Your task to perform on an android device: move a message to another label in the gmail app Image 0: 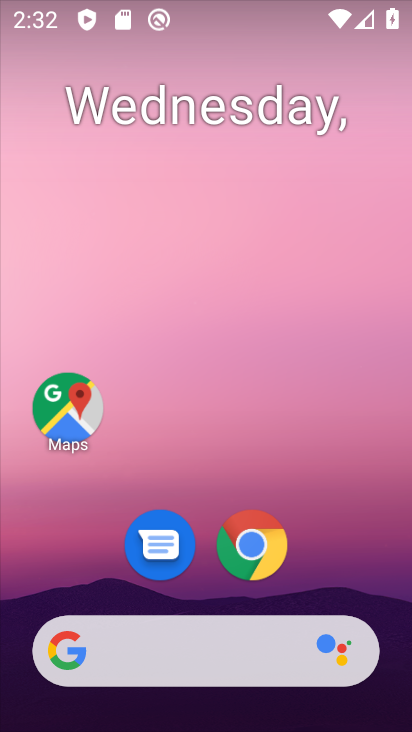
Step 0: drag from (201, 723) to (212, 116)
Your task to perform on an android device: move a message to another label in the gmail app Image 1: 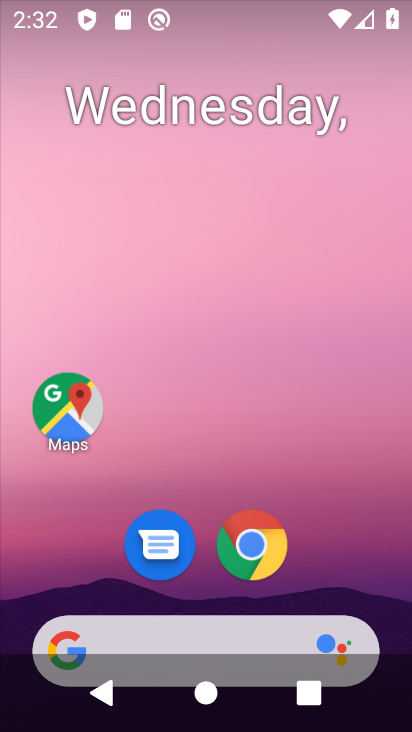
Step 1: drag from (202, 727) to (203, 110)
Your task to perform on an android device: move a message to another label in the gmail app Image 2: 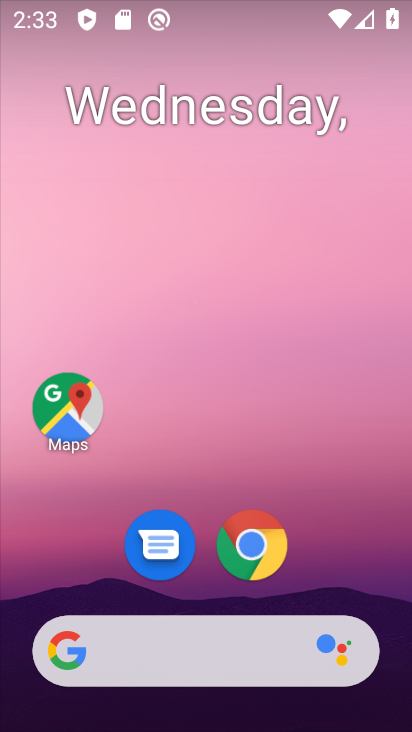
Step 2: drag from (203, 725) to (194, 131)
Your task to perform on an android device: move a message to another label in the gmail app Image 3: 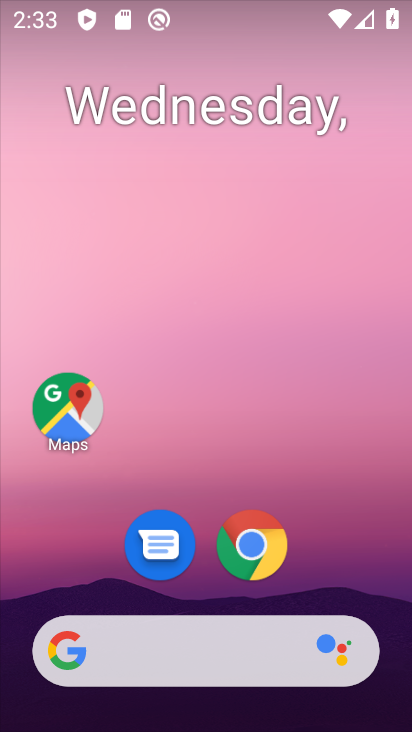
Step 3: drag from (201, 718) to (183, 54)
Your task to perform on an android device: move a message to another label in the gmail app Image 4: 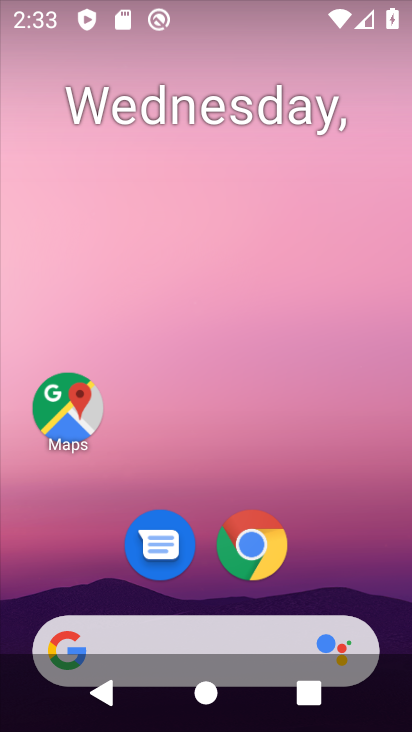
Step 4: drag from (193, 709) to (195, 4)
Your task to perform on an android device: move a message to another label in the gmail app Image 5: 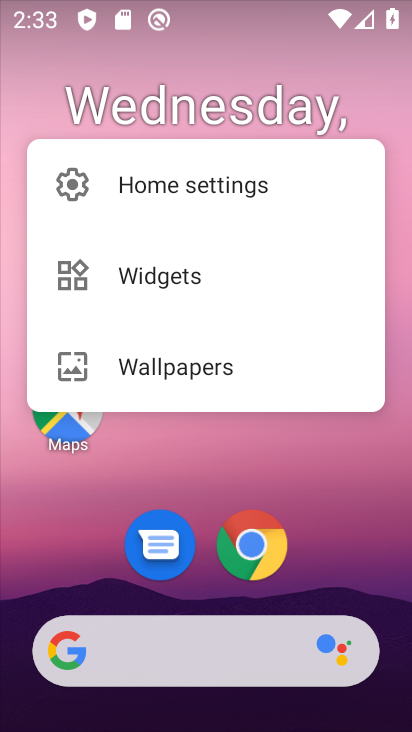
Step 5: click (210, 435)
Your task to perform on an android device: move a message to another label in the gmail app Image 6: 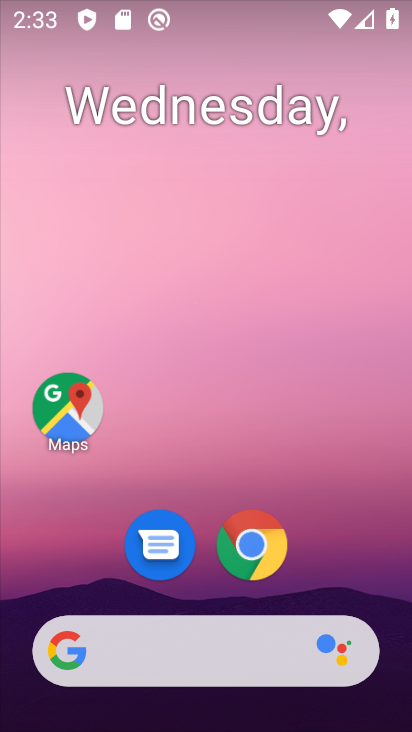
Step 6: drag from (204, 723) to (180, 54)
Your task to perform on an android device: move a message to another label in the gmail app Image 7: 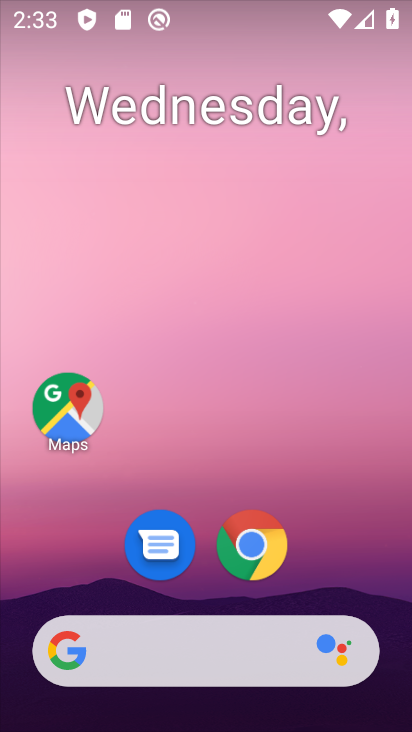
Step 7: drag from (189, 708) to (196, 92)
Your task to perform on an android device: move a message to another label in the gmail app Image 8: 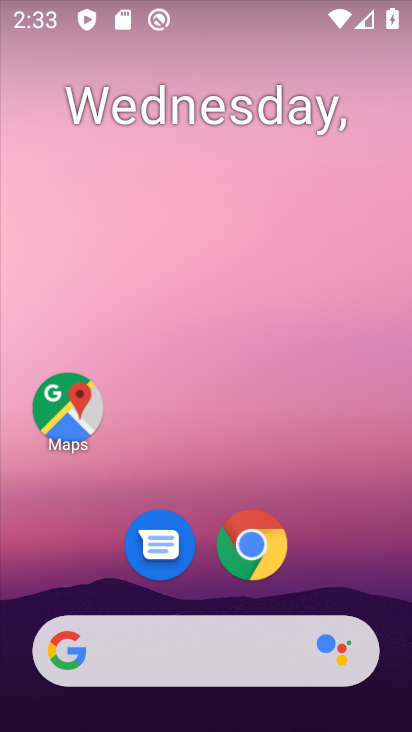
Step 8: drag from (200, 695) to (200, 49)
Your task to perform on an android device: move a message to another label in the gmail app Image 9: 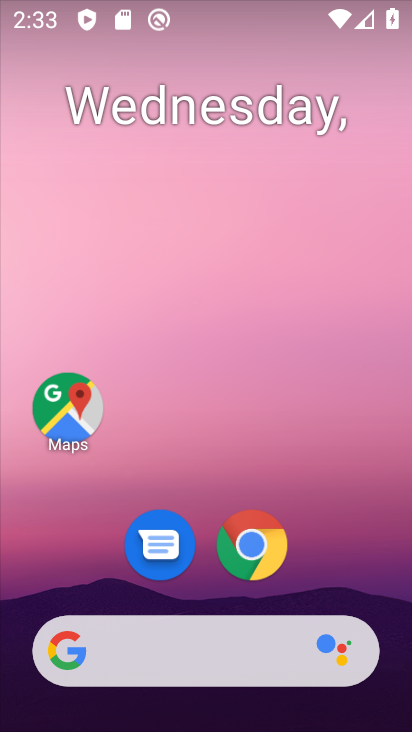
Step 9: drag from (207, 720) to (213, 4)
Your task to perform on an android device: move a message to another label in the gmail app Image 10: 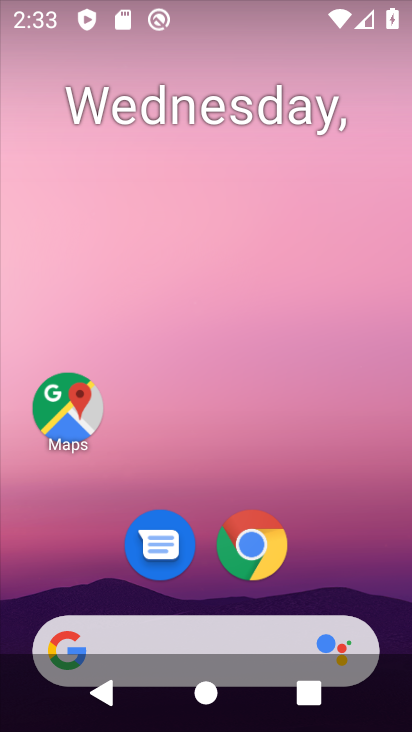
Step 10: drag from (184, 714) to (184, 42)
Your task to perform on an android device: move a message to another label in the gmail app Image 11: 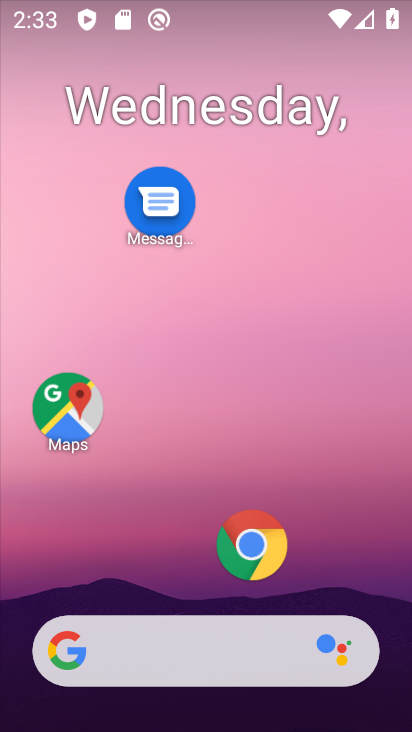
Step 11: drag from (191, 718) to (175, 147)
Your task to perform on an android device: move a message to another label in the gmail app Image 12: 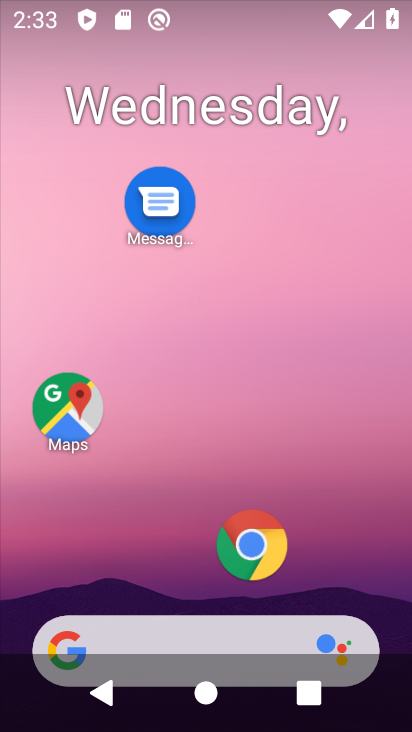
Step 12: drag from (220, 716) to (216, 37)
Your task to perform on an android device: move a message to another label in the gmail app Image 13: 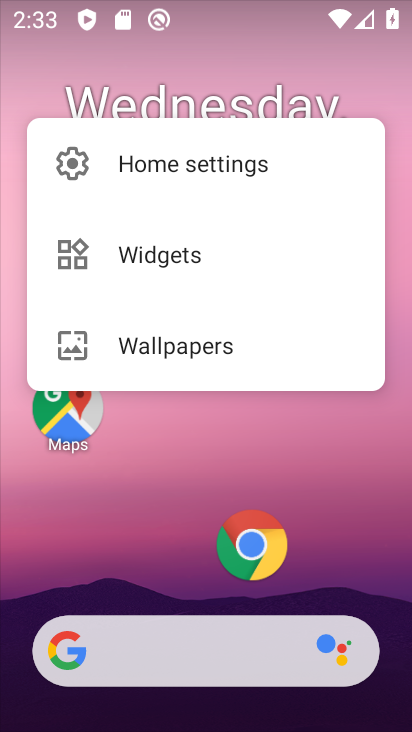
Step 13: click (199, 457)
Your task to perform on an android device: move a message to another label in the gmail app Image 14: 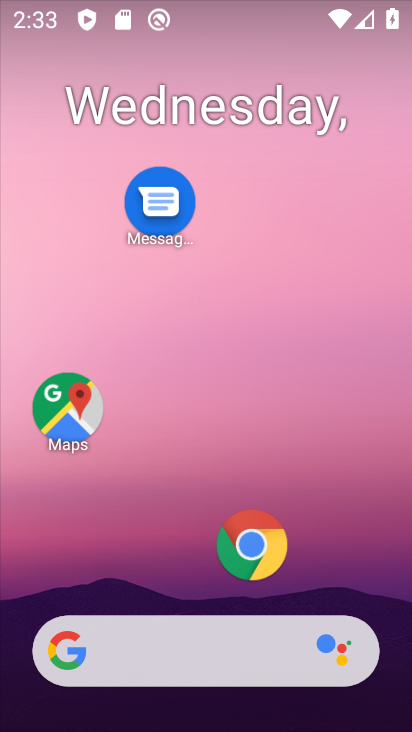
Step 14: drag from (238, 715) to (218, 44)
Your task to perform on an android device: move a message to another label in the gmail app Image 15: 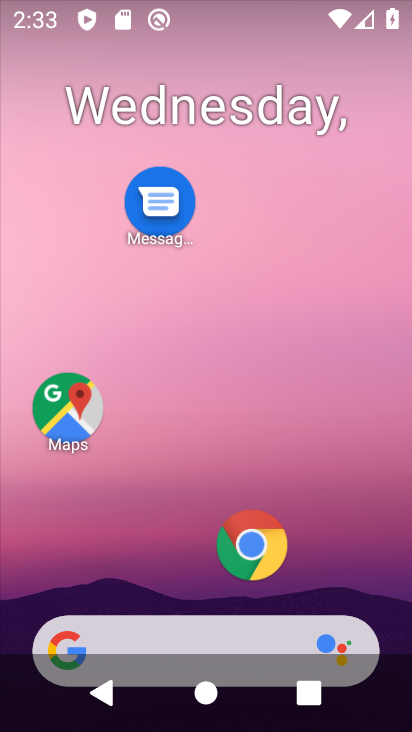
Step 15: drag from (237, 606) to (240, 139)
Your task to perform on an android device: move a message to another label in the gmail app Image 16: 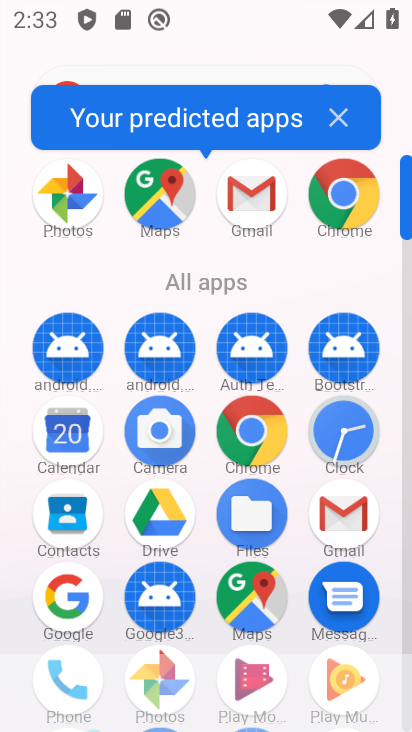
Step 16: click (339, 514)
Your task to perform on an android device: move a message to another label in the gmail app Image 17: 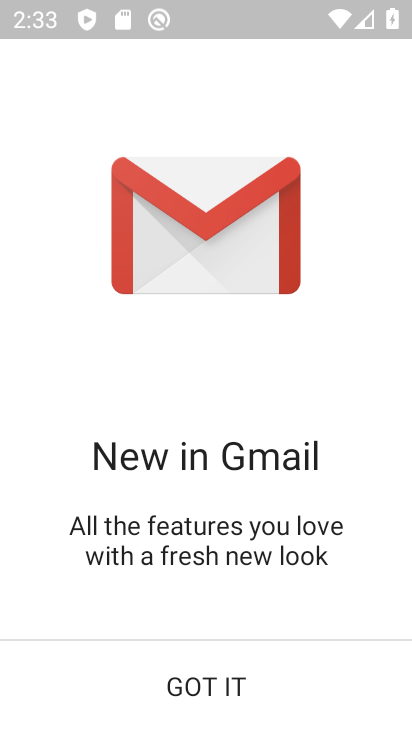
Step 17: click (213, 680)
Your task to perform on an android device: move a message to another label in the gmail app Image 18: 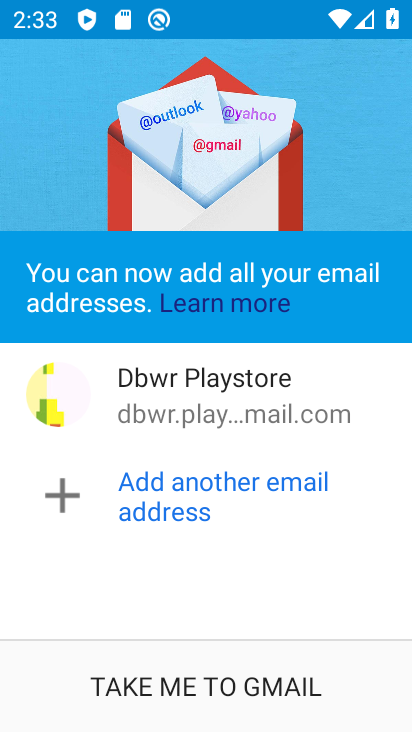
Step 18: click (213, 680)
Your task to perform on an android device: move a message to another label in the gmail app Image 19: 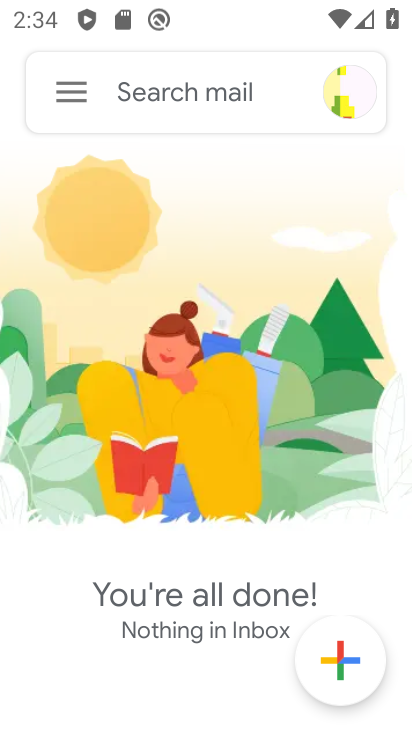
Step 19: task complete